Your task to perform on an android device: Go to Maps Image 0: 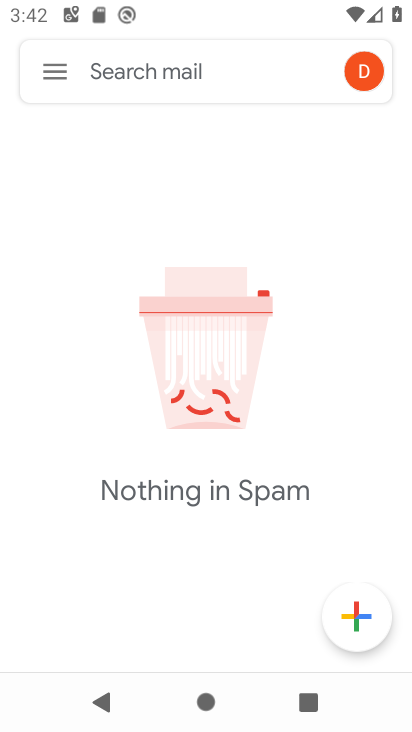
Step 0: press home button
Your task to perform on an android device: Go to Maps Image 1: 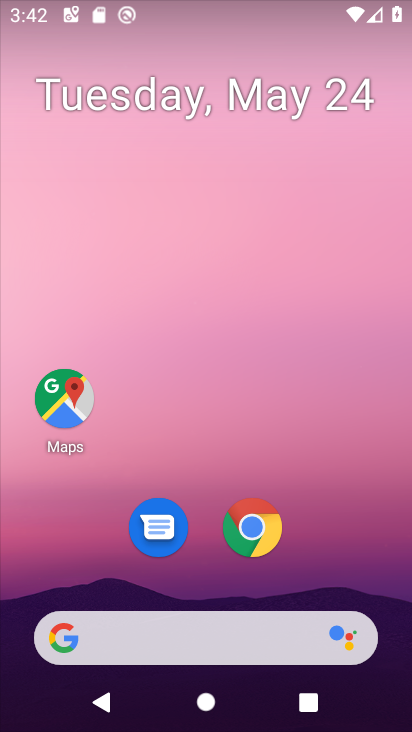
Step 1: click (60, 392)
Your task to perform on an android device: Go to Maps Image 2: 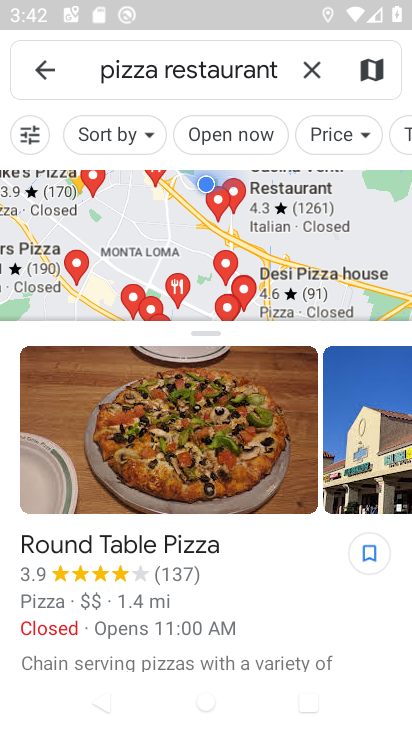
Step 2: task complete